Your task to perform on an android device: Search for razer blade on costco, select the first entry, and add it to the cart. Image 0: 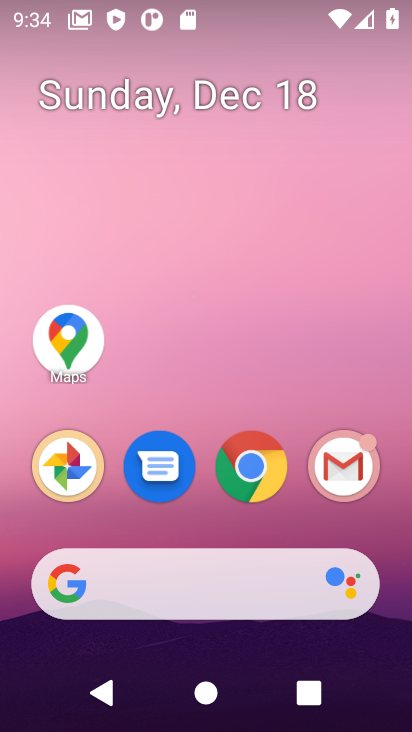
Step 0: click (240, 470)
Your task to perform on an android device: Search for razer blade on costco, select the first entry, and add it to the cart. Image 1: 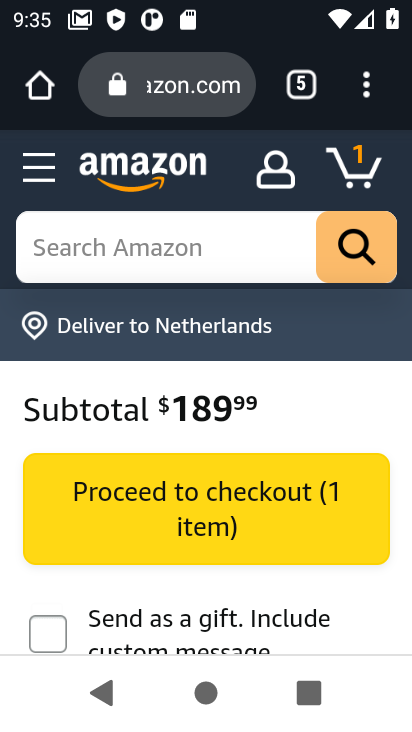
Step 1: click (222, 81)
Your task to perform on an android device: Search for razer blade on costco, select the first entry, and add it to the cart. Image 2: 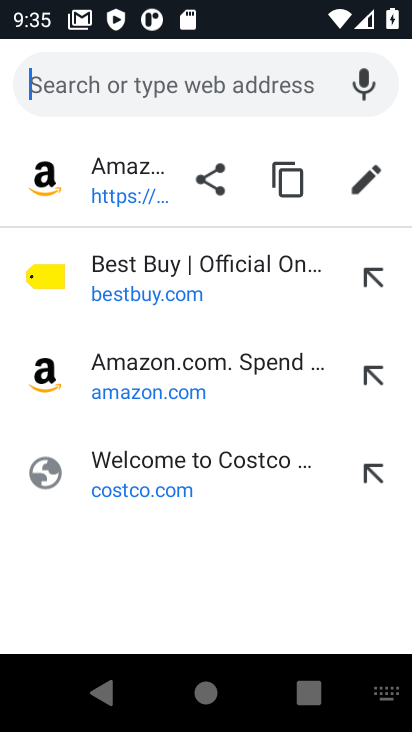
Step 2: click (162, 479)
Your task to perform on an android device: Search for razer blade on costco, select the first entry, and add it to the cart. Image 3: 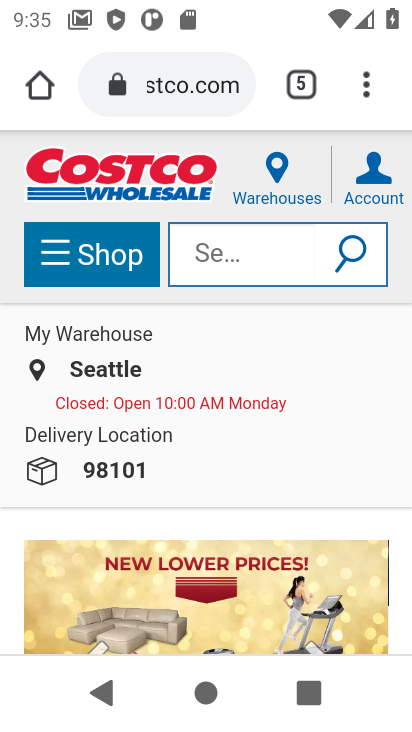
Step 3: click (238, 248)
Your task to perform on an android device: Search for razer blade on costco, select the first entry, and add it to the cart. Image 4: 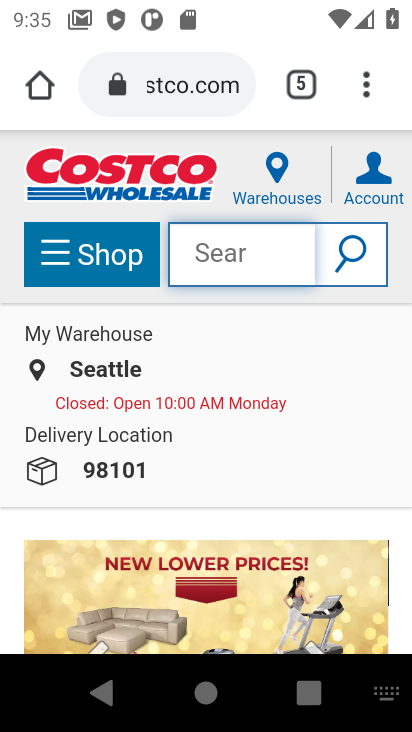
Step 4: type "razer blade "
Your task to perform on an android device: Search for razer blade on costco, select the first entry, and add it to the cart. Image 5: 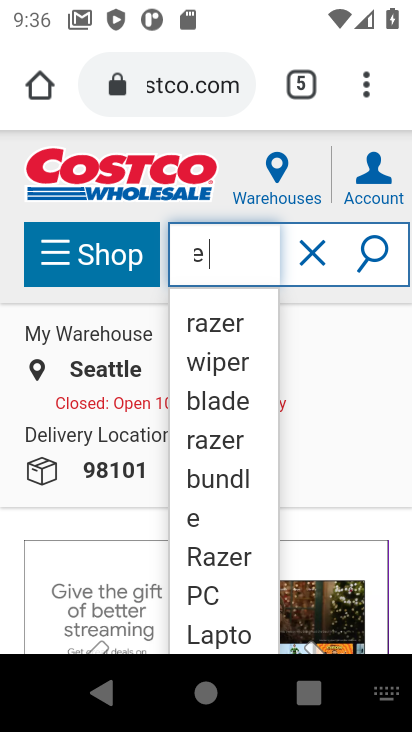
Step 5: click (220, 336)
Your task to perform on an android device: Search for razer blade on costco, select the first entry, and add it to the cart. Image 6: 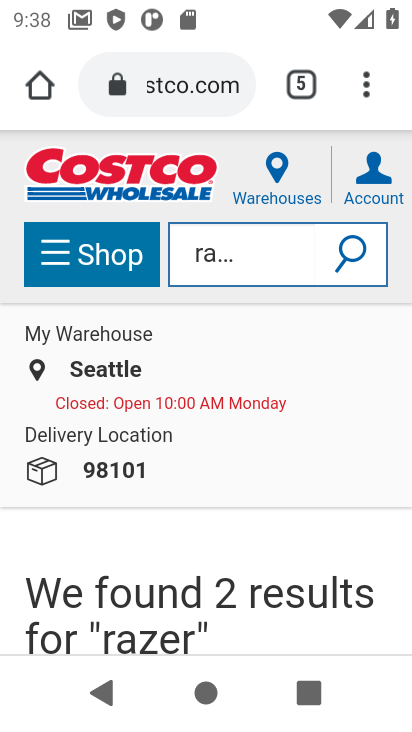
Step 6: task complete